Your task to perform on an android device: check storage Image 0: 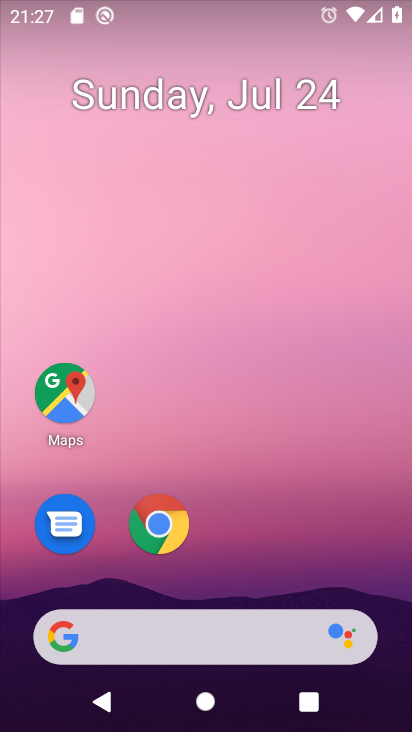
Step 0: drag from (283, 535) to (312, 30)
Your task to perform on an android device: check storage Image 1: 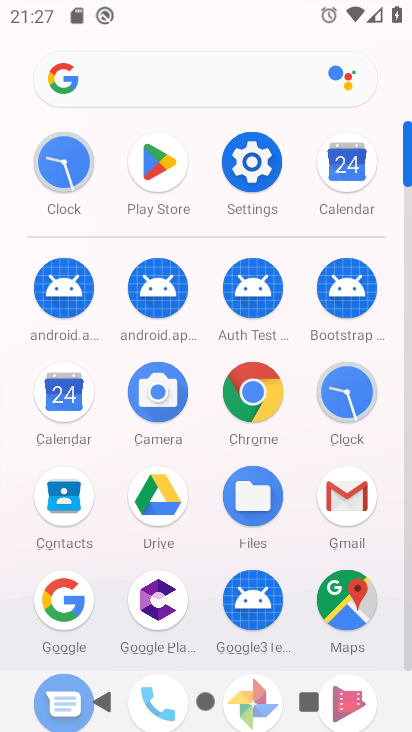
Step 1: click (247, 153)
Your task to perform on an android device: check storage Image 2: 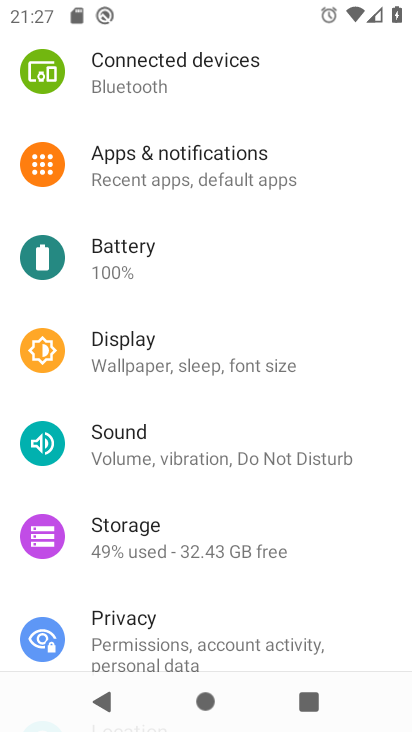
Step 2: click (176, 545)
Your task to perform on an android device: check storage Image 3: 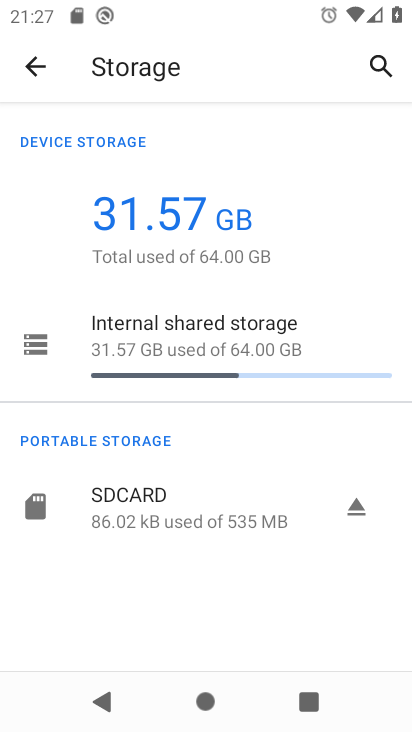
Step 3: task complete